Your task to perform on an android device: toggle javascript in the chrome app Image 0: 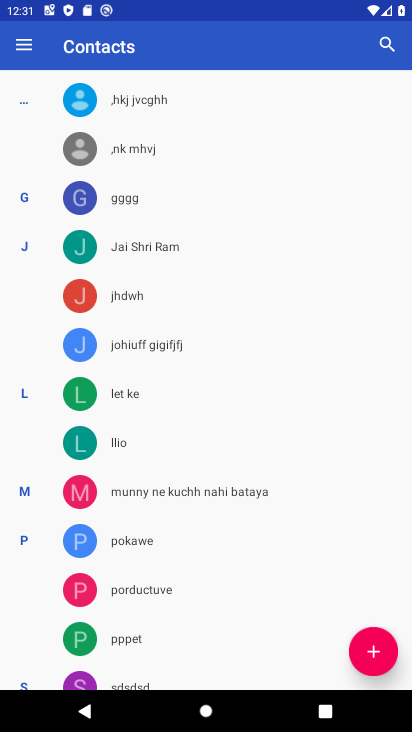
Step 0: press home button
Your task to perform on an android device: toggle javascript in the chrome app Image 1: 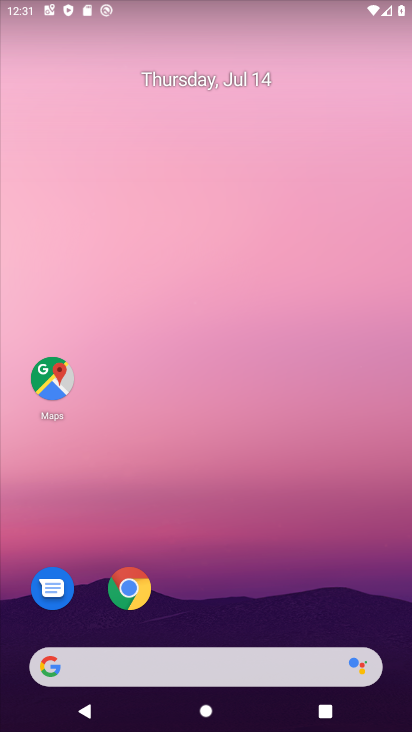
Step 1: click (118, 584)
Your task to perform on an android device: toggle javascript in the chrome app Image 2: 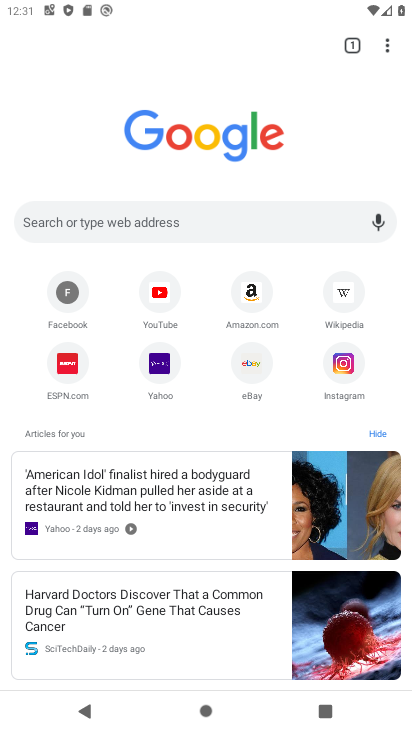
Step 2: drag from (385, 48) to (258, 381)
Your task to perform on an android device: toggle javascript in the chrome app Image 3: 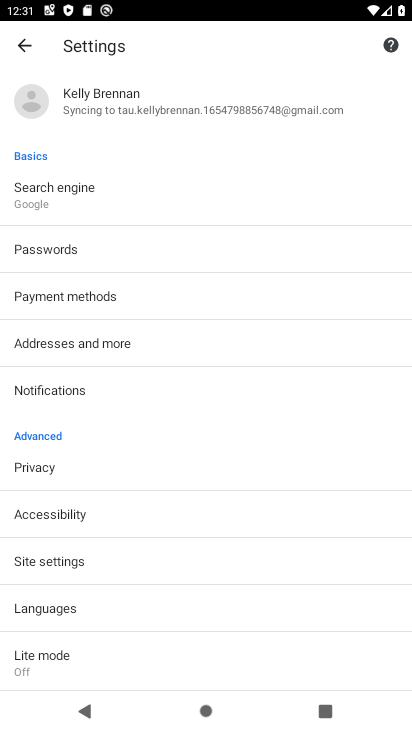
Step 3: click (107, 559)
Your task to perform on an android device: toggle javascript in the chrome app Image 4: 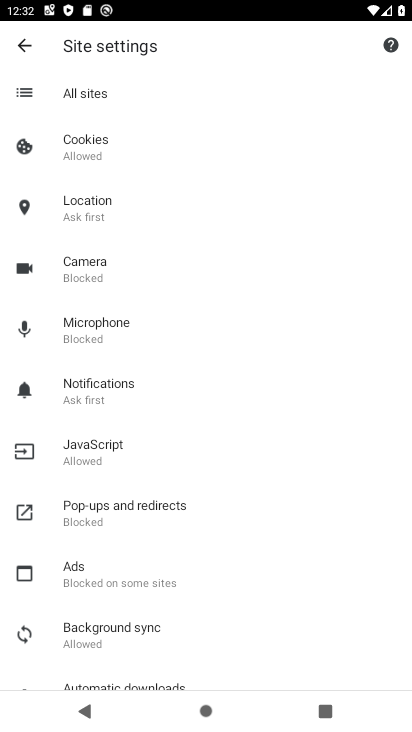
Step 4: click (146, 449)
Your task to perform on an android device: toggle javascript in the chrome app Image 5: 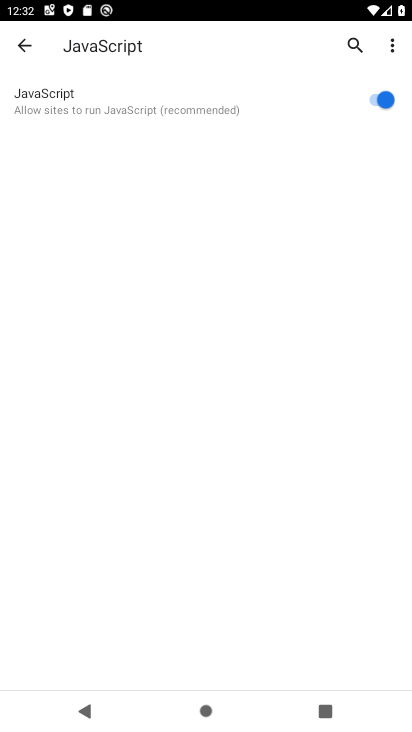
Step 5: click (368, 96)
Your task to perform on an android device: toggle javascript in the chrome app Image 6: 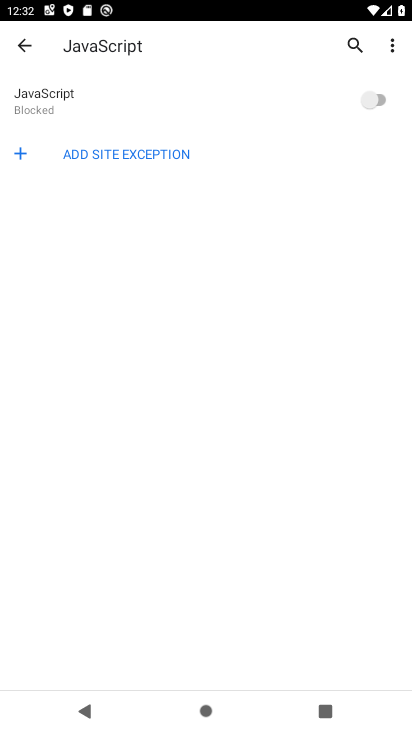
Step 6: task complete